Your task to perform on an android device: see tabs open on other devices in the chrome app Image 0: 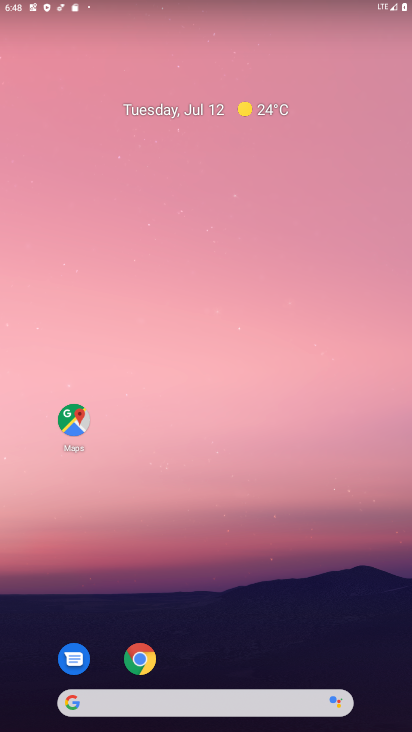
Step 0: drag from (357, 681) to (210, 38)
Your task to perform on an android device: see tabs open on other devices in the chrome app Image 1: 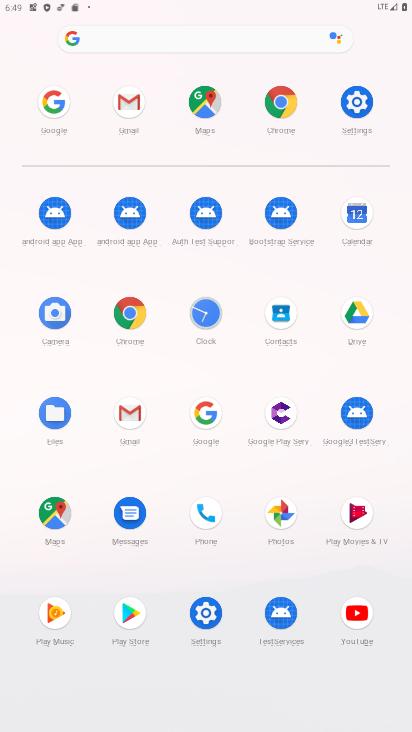
Step 1: click (281, 118)
Your task to perform on an android device: see tabs open on other devices in the chrome app Image 2: 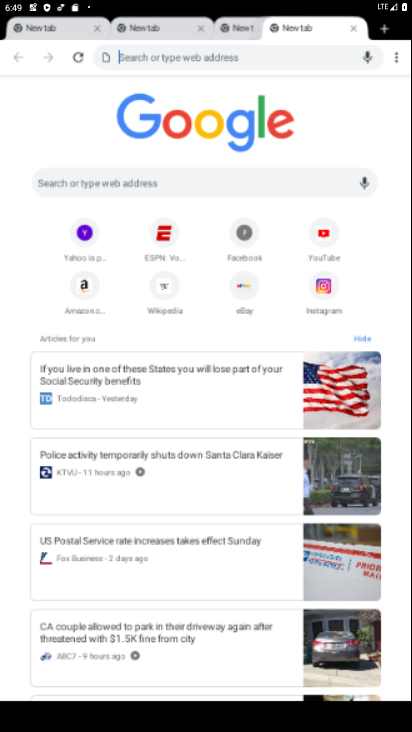
Step 2: task complete